Your task to perform on an android device: open the mobile data screen to see how much data has been used Image 0: 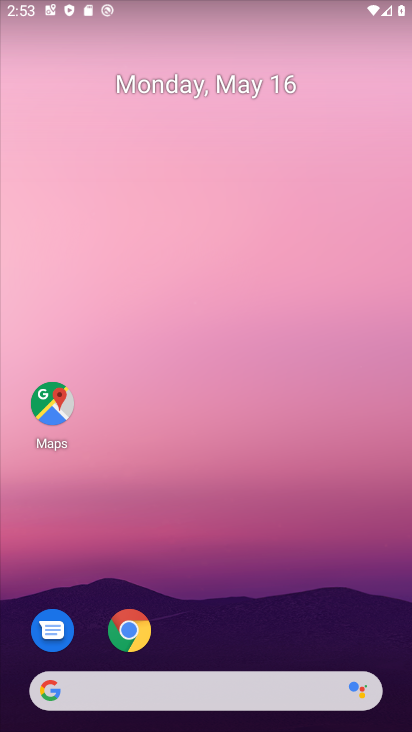
Step 0: drag from (264, 556) to (215, 13)
Your task to perform on an android device: open the mobile data screen to see how much data has been used Image 1: 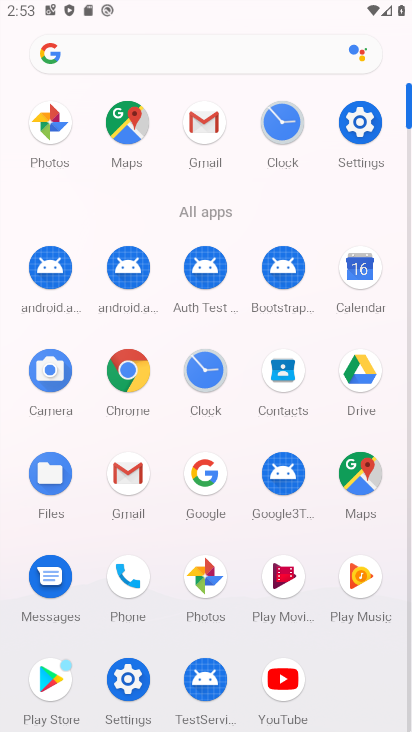
Step 1: drag from (11, 488) to (11, 202)
Your task to perform on an android device: open the mobile data screen to see how much data has been used Image 2: 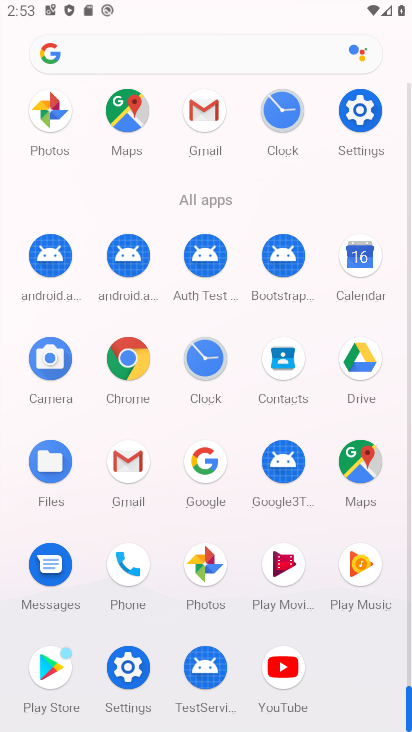
Step 2: click (128, 664)
Your task to perform on an android device: open the mobile data screen to see how much data has been used Image 3: 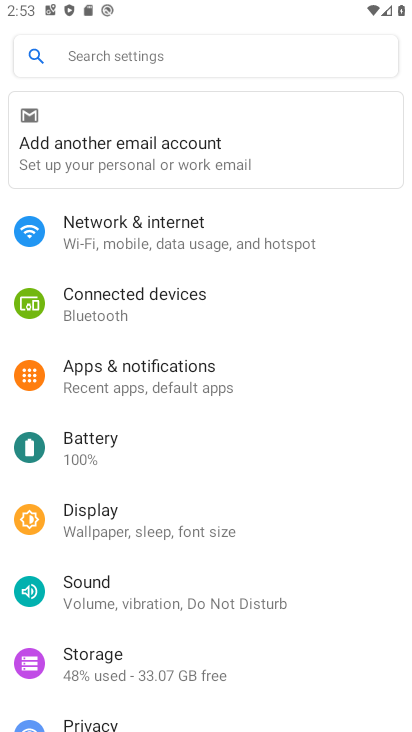
Step 3: click (222, 231)
Your task to perform on an android device: open the mobile data screen to see how much data has been used Image 4: 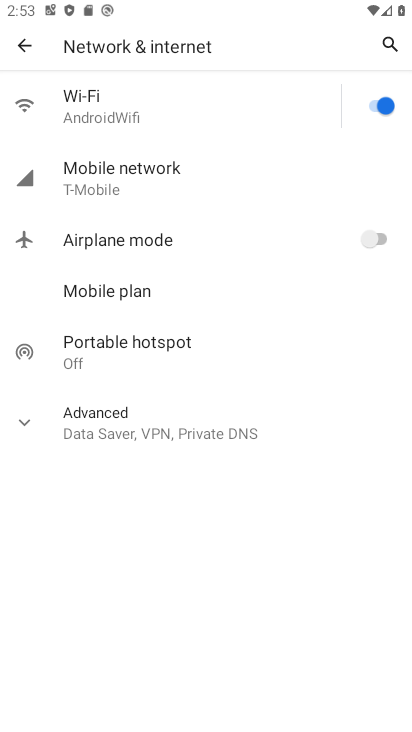
Step 4: click (187, 175)
Your task to perform on an android device: open the mobile data screen to see how much data has been used Image 5: 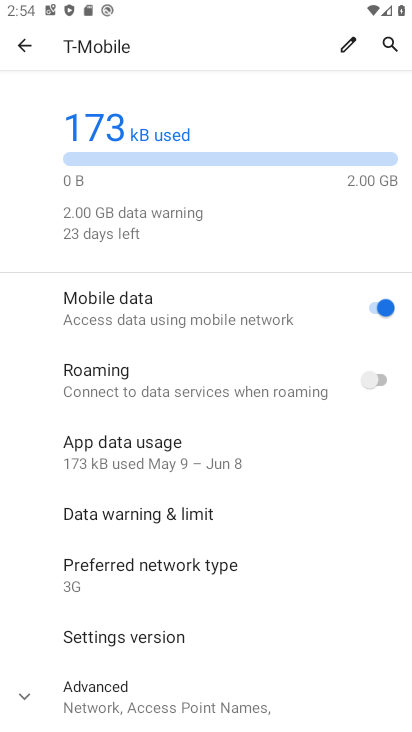
Step 5: drag from (258, 546) to (227, 139)
Your task to perform on an android device: open the mobile data screen to see how much data has been used Image 6: 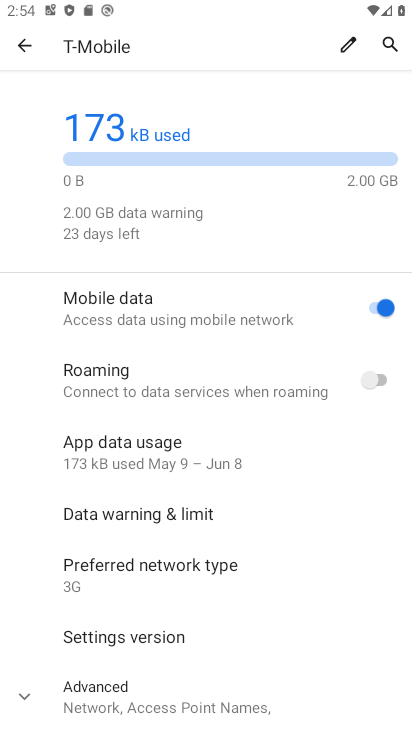
Step 6: click (33, 688)
Your task to perform on an android device: open the mobile data screen to see how much data has been used Image 7: 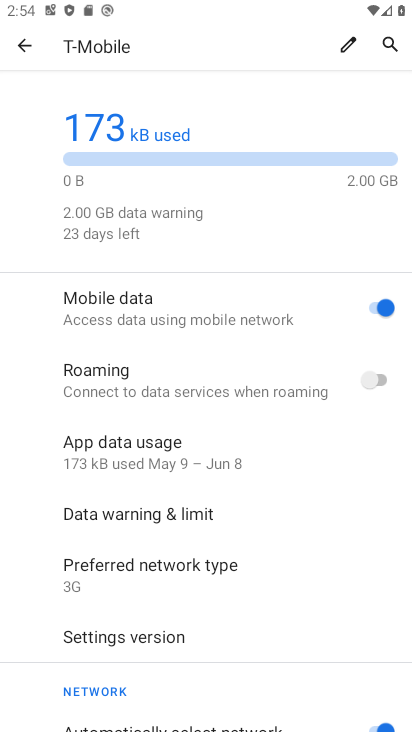
Step 7: task complete